Your task to perform on an android device: toggle pop-ups in chrome Image 0: 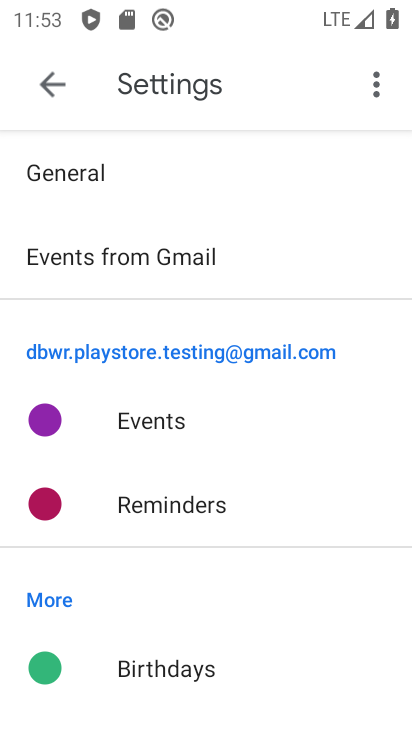
Step 0: press home button
Your task to perform on an android device: toggle pop-ups in chrome Image 1: 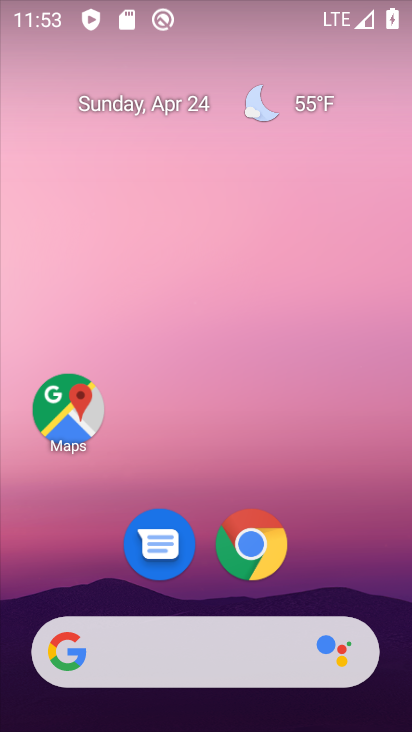
Step 1: click (257, 545)
Your task to perform on an android device: toggle pop-ups in chrome Image 2: 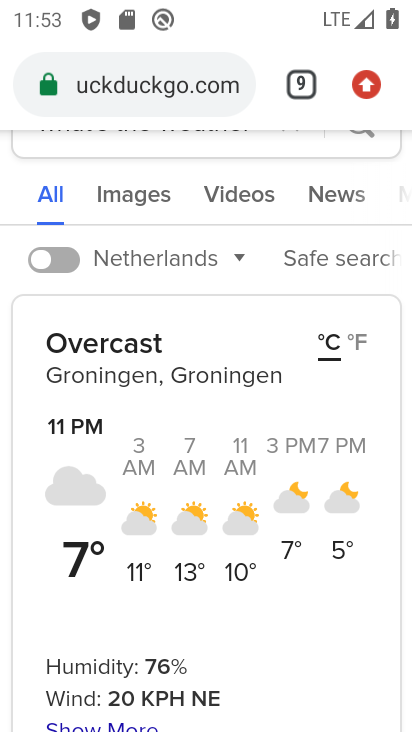
Step 2: drag from (366, 87) to (136, 592)
Your task to perform on an android device: toggle pop-ups in chrome Image 3: 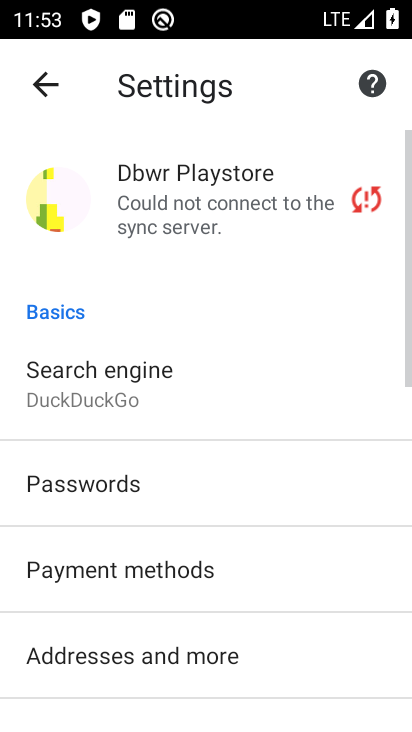
Step 3: drag from (171, 601) to (153, 137)
Your task to perform on an android device: toggle pop-ups in chrome Image 4: 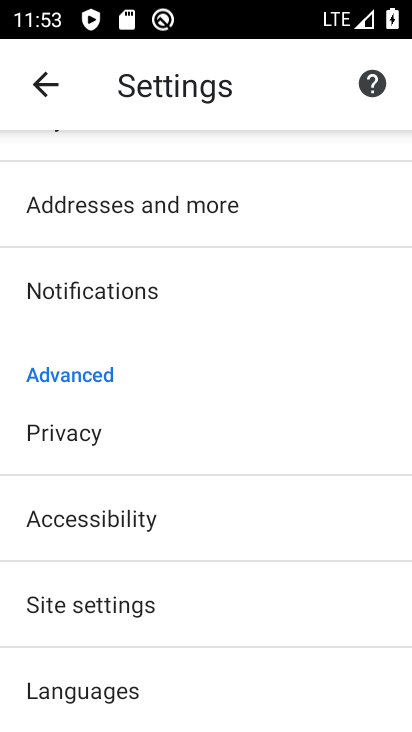
Step 4: click (104, 607)
Your task to perform on an android device: toggle pop-ups in chrome Image 5: 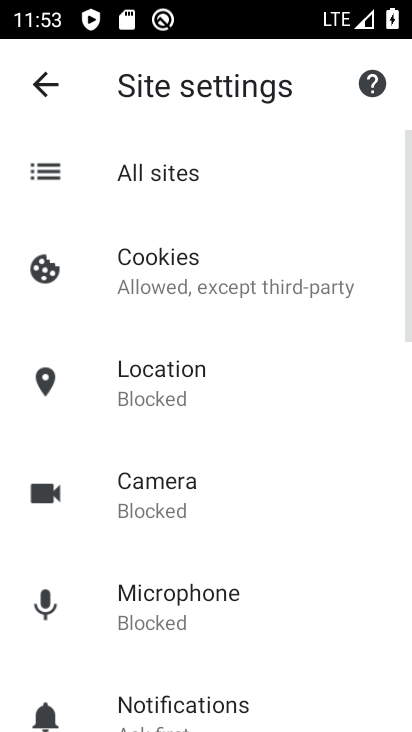
Step 5: drag from (229, 660) to (167, 204)
Your task to perform on an android device: toggle pop-ups in chrome Image 6: 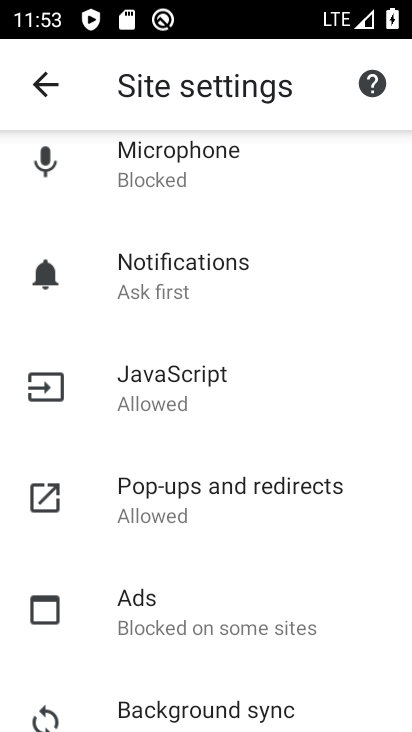
Step 6: click (158, 493)
Your task to perform on an android device: toggle pop-ups in chrome Image 7: 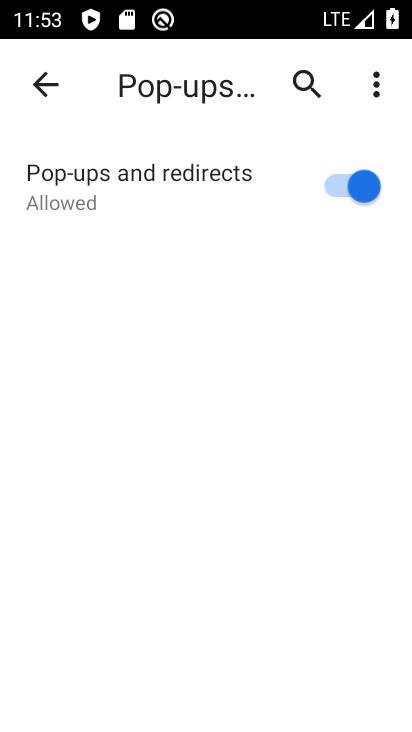
Step 7: click (366, 188)
Your task to perform on an android device: toggle pop-ups in chrome Image 8: 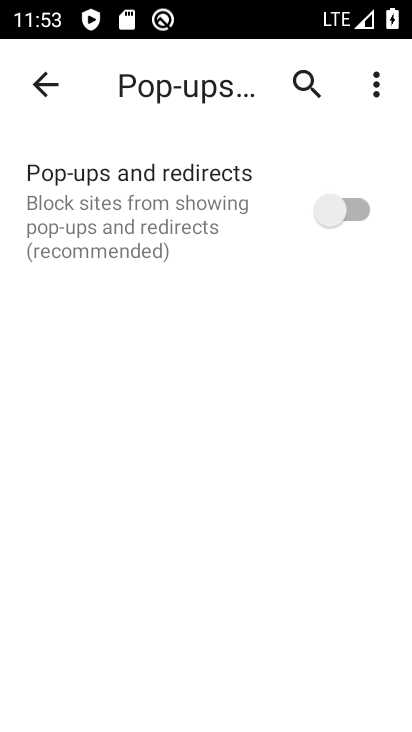
Step 8: task complete